Your task to perform on an android device: Go to internet settings Image 0: 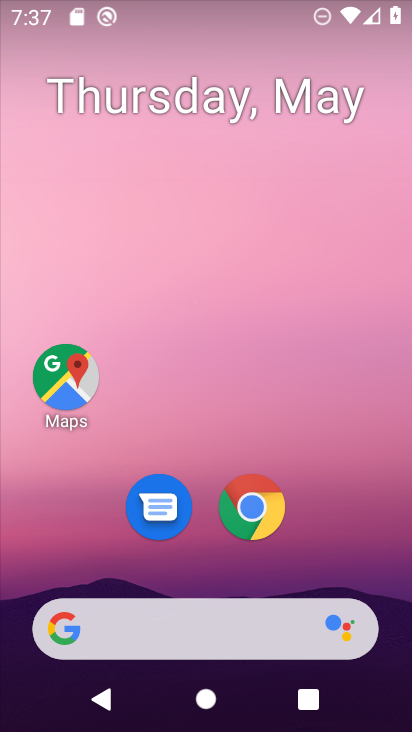
Step 0: drag from (322, 395) to (307, 221)
Your task to perform on an android device: Go to internet settings Image 1: 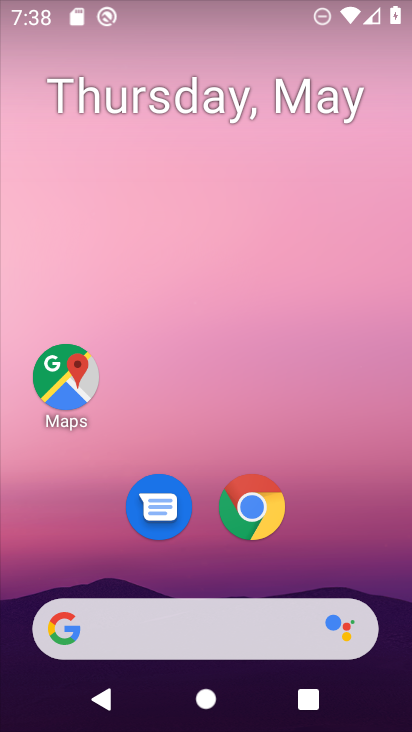
Step 1: drag from (359, 518) to (306, 43)
Your task to perform on an android device: Go to internet settings Image 2: 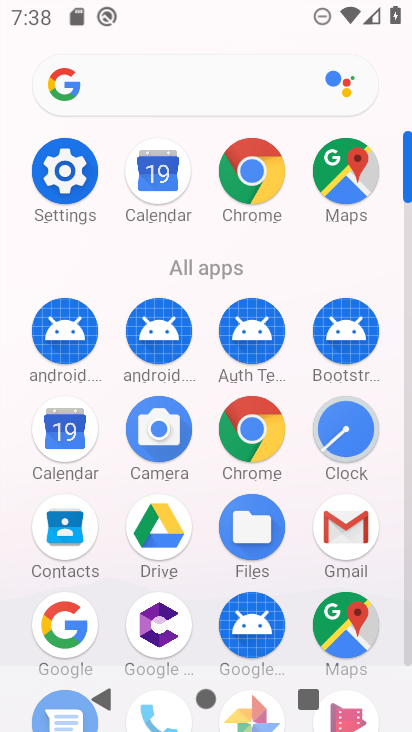
Step 2: click (48, 171)
Your task to perform on an android device: Go to internet settings Image 3: 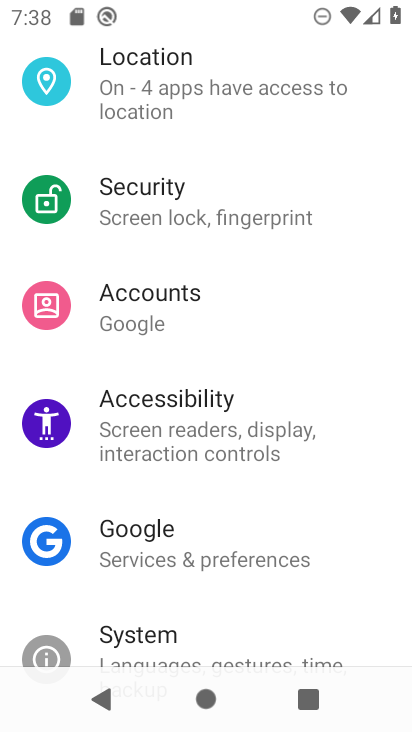
Step 3: drag from (193, 240) to (267, 526)
Your task to perform on an android device: Go to internet settings Image 4: 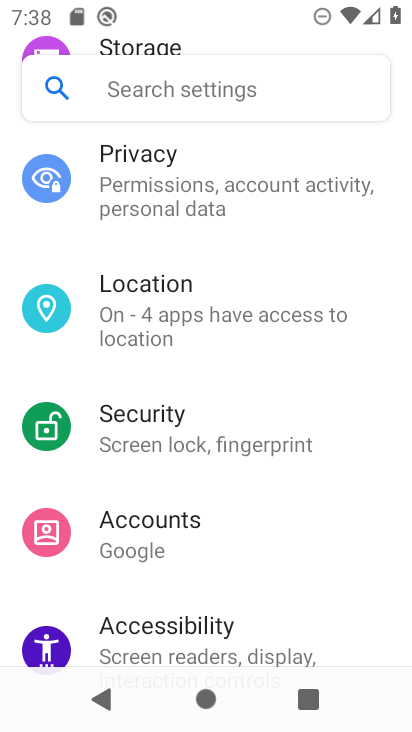
Step 4: drag from (239, 276) to (268, 526)
Your task to perform on an android device: Go to internet settings Image 5: 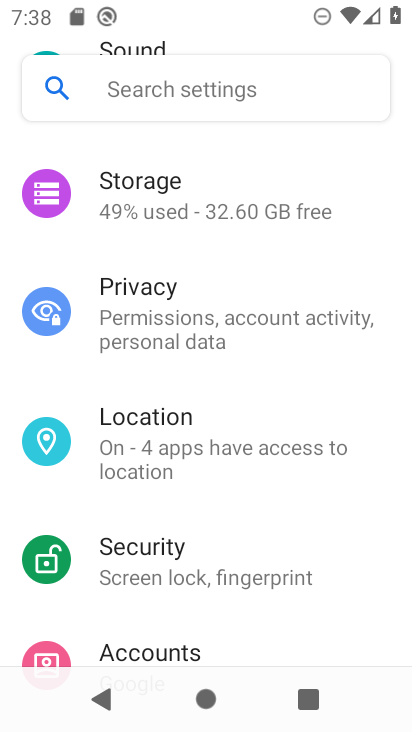
Step 5: drag from (237, 271) to (307, 577)
Your task to perform on an android device: Go to internet settings Image 6: 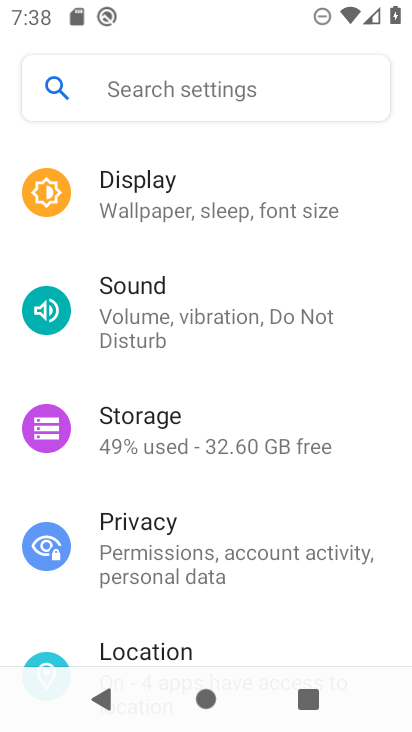
Step 6: drag from (199, 220) to (277, 552)
Your task to perform on an android device: Go to internet settings Image 7: 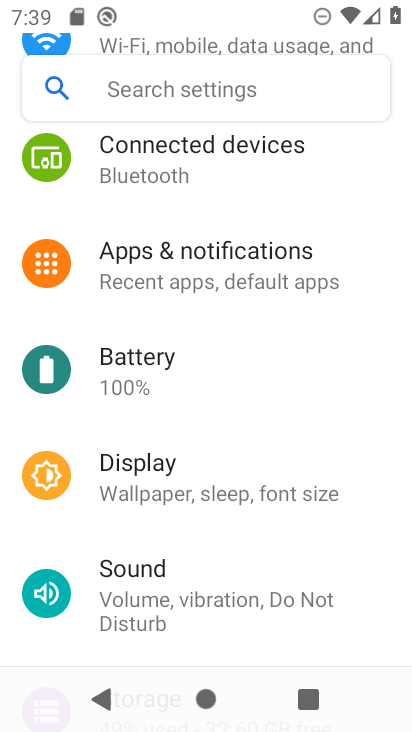
Step 7: drag from (281, 221) to (338, 558)
Your task to perform on an android device: Go to internet settings Image 8: 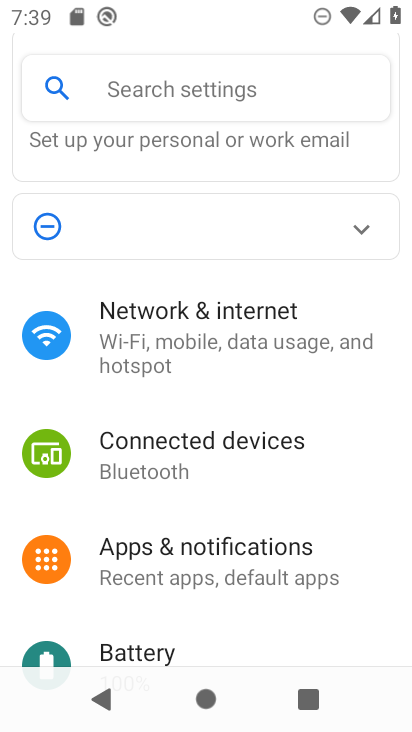
Step 8: drag from (309, 207) to (366, 567)
Your task to perform on an android device: Go to internet settings Image 9: 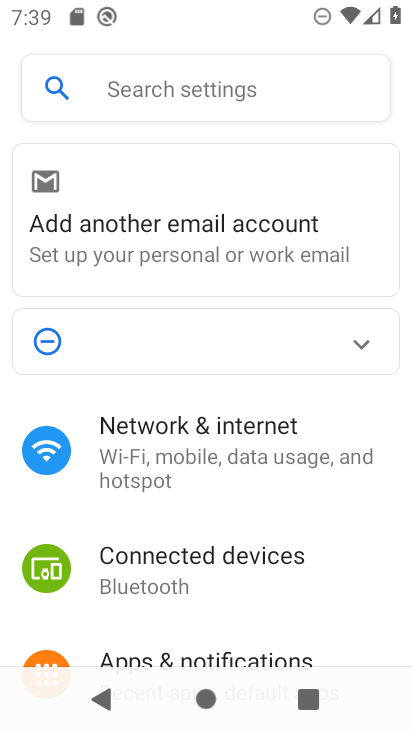
Step 9: click (201, 439)
Your task to perform on an android device: Go to internet settings Image 10: 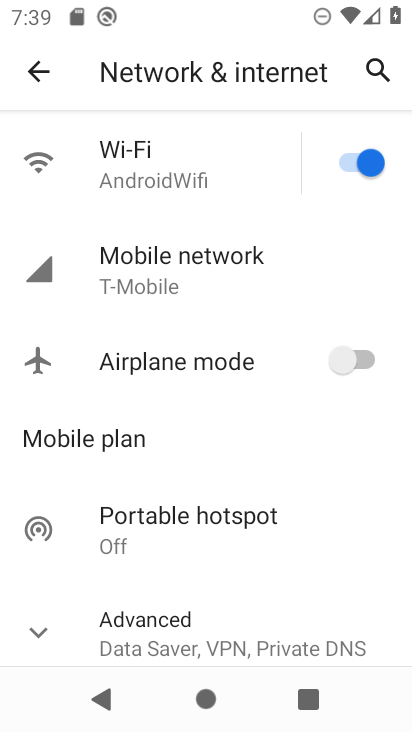
Step 10: click (212, 284)
Your task to perform on an android device: Go to internet settings Image 11: 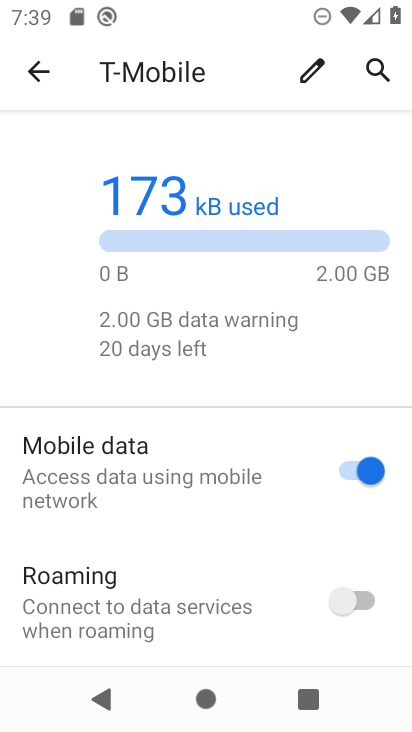
Step 11: task complete